Your task to perform on an android device: Show me popular games on the Play Store Image 0: 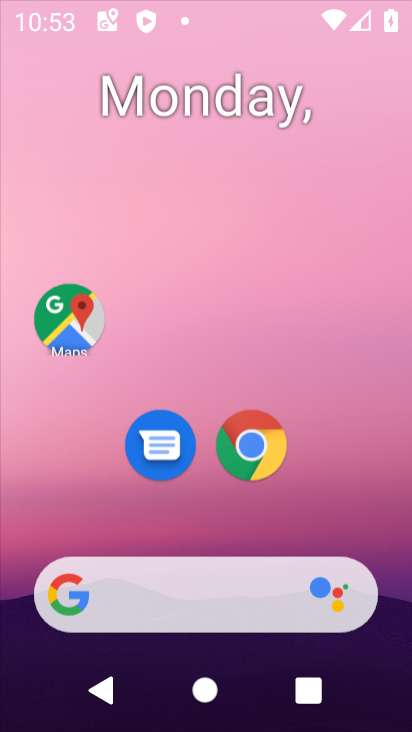
Step 0: click (287, 131)
Your task to perform on an android device: Show me popular games on the Play Store Image 1: 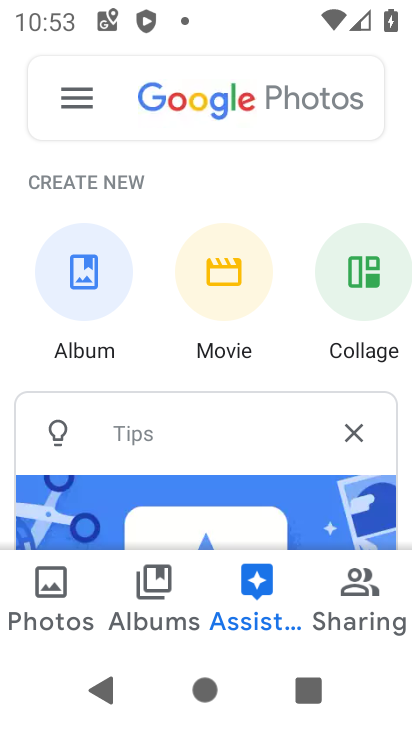
Step 1: press back button
Your task to perform on an android device: Show me popular games on the Play Store Image 2: 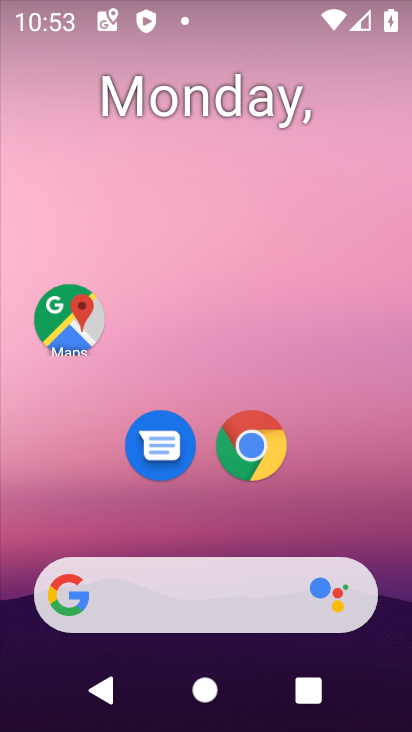
Step 2: drag from (180, 525) to (271, 24)
Your task to perform on an android device: Show me popular games on the Play Store Image 3: 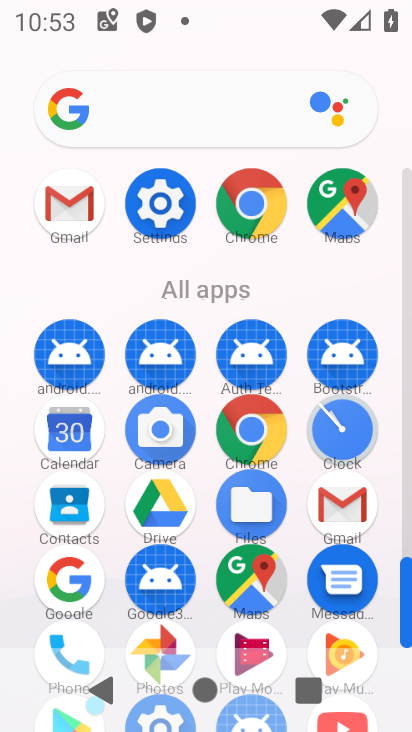
Step 3: drag from (205, 559) to (317, 95)
Your task to perform on an android device: Show me popular games on the Play Store Image 4: 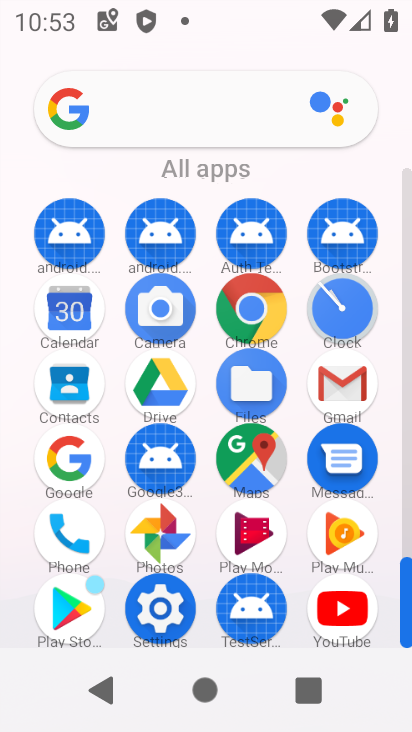
Step 4: click (70, 602)
Your task to perform on an android device: Show me popular games on the Play Store Image 5: 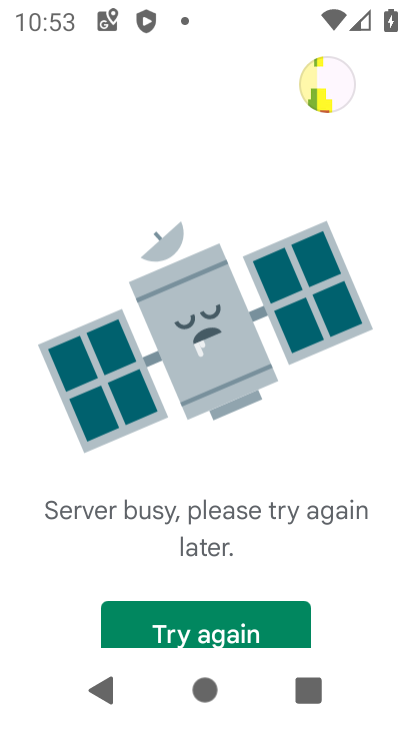
Step 5: drag from (248, 617) to (332, 149)
Your task to perform on an android device: Show me popular games on the Play Store Image 6: 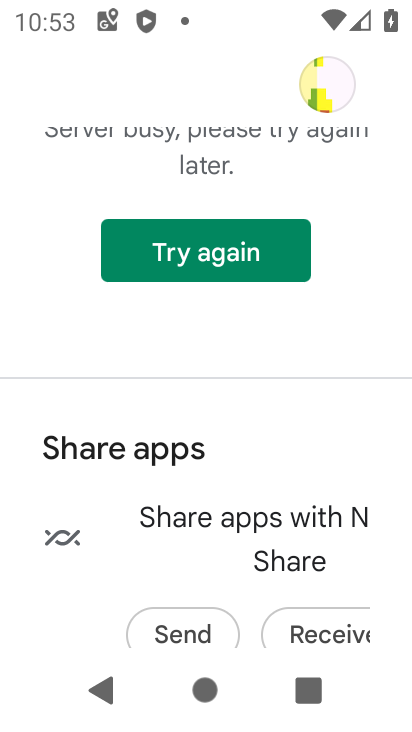
Step 6: click (202, 249)
Your task to perform on an android device: Show me popular games on the Play Store Image 7: 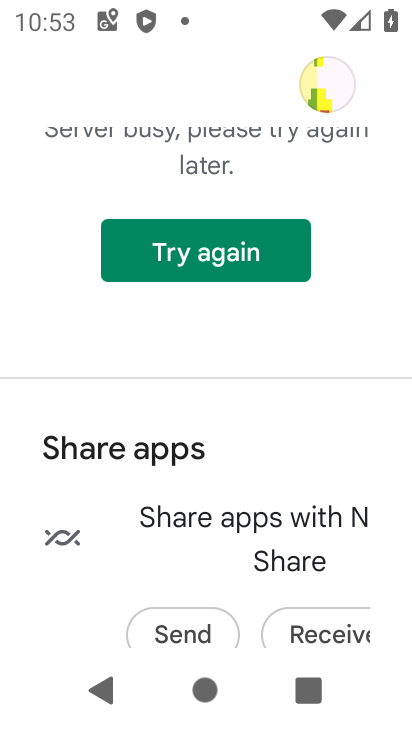
Step 7: task complete